Your task to perform on an android device: open a bookmark in the chrome app Image 0: 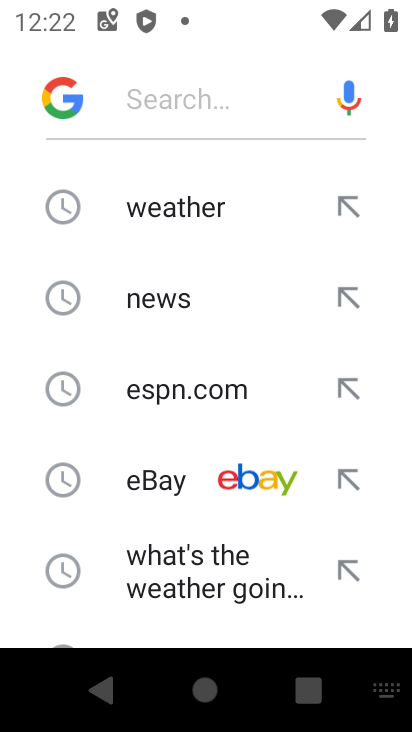
Step 0: press home button
Your task to perform on an android device: open a bookmark in the chrome app Image 1: 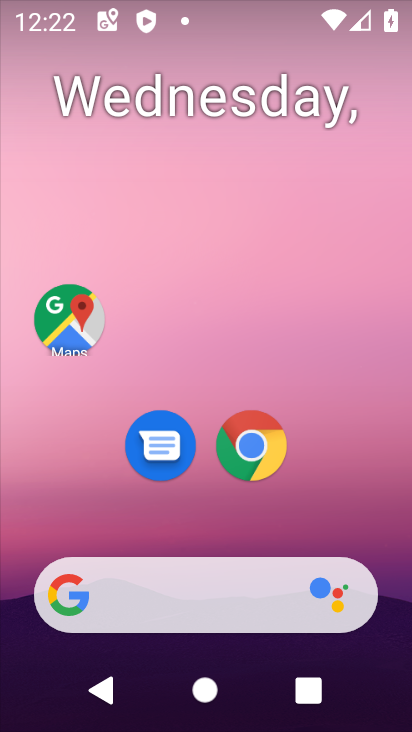
Step 1: drag from (346, 230) to (345, 123)
Your task to perform on an android device: open a bookmark in the chrome app Image 2: 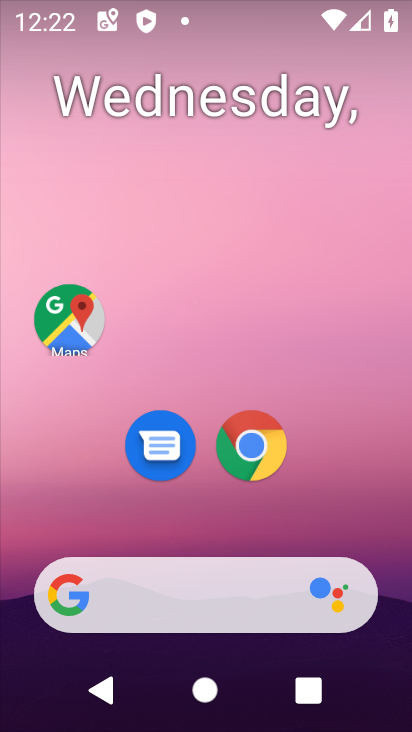
Step 2: drag from (330, 502) to (293, 119)
Your task to perform on an android device: open a bookmark in the chrome app Image 3: 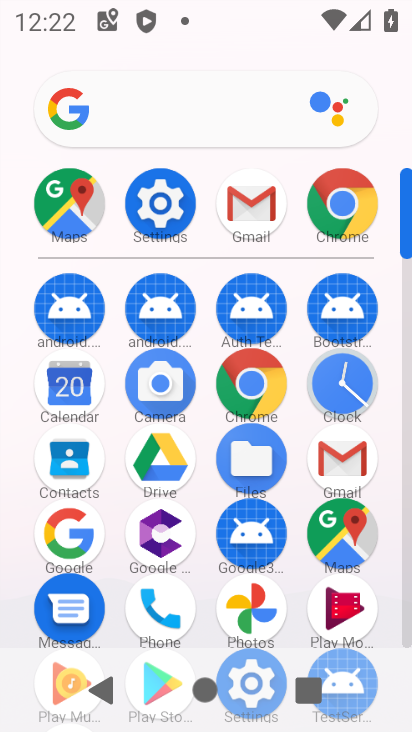
Step 3: click (250, 391)
Your task to perform on an android device: open a bookmark in the chrome app Image 4: 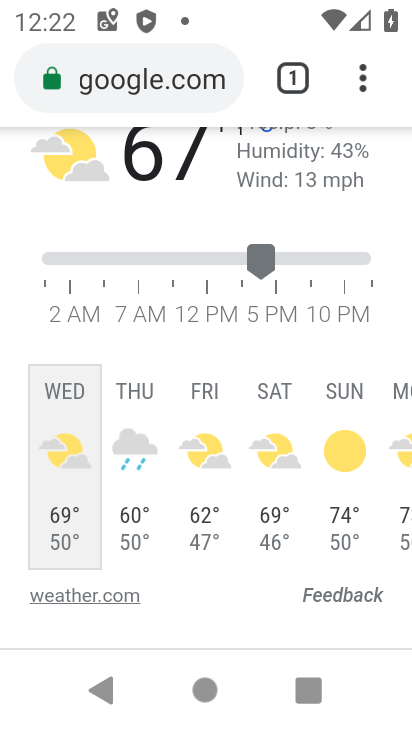
Step 4: task complete